Your task to perform on an android device: Go to Maps Image 0: 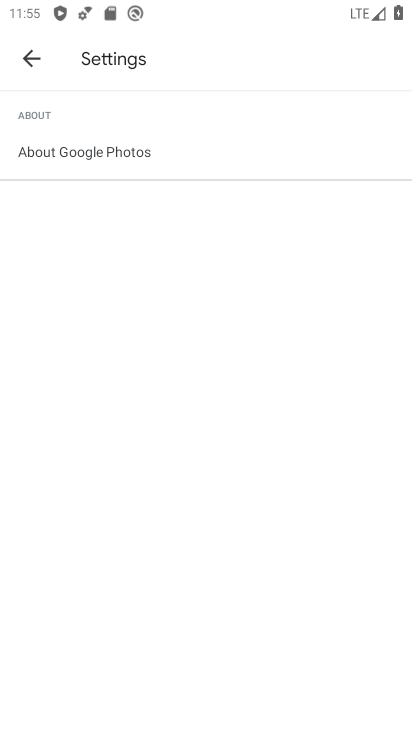
Step 0: press home button
Your task to perform on an android device: Go to Maps Image 1: 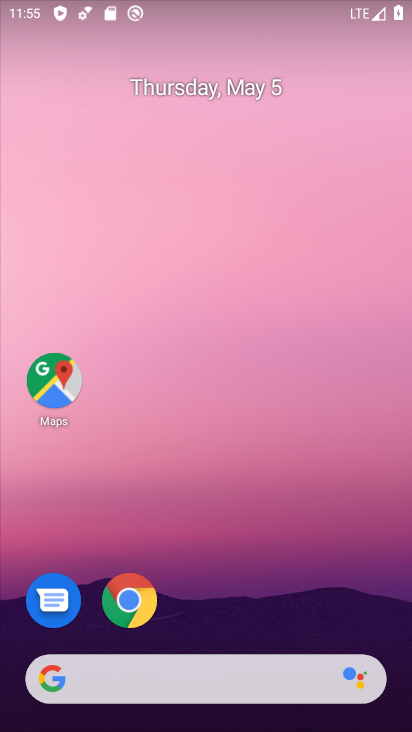
Step 1: drag from (354, 604) to (369, 91)
Your task to perform on an android device: Go to Maps Image 2: 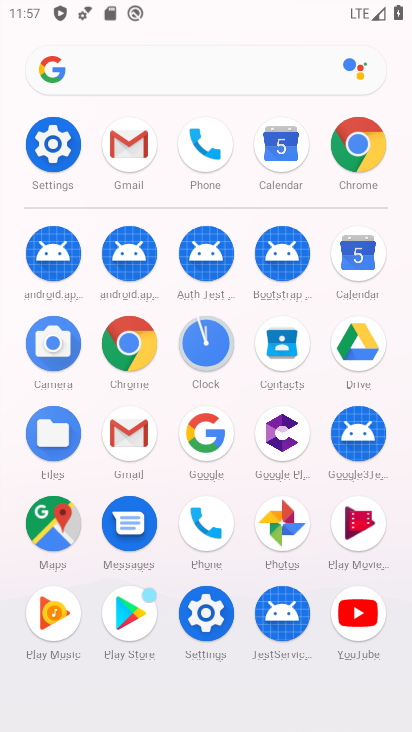
Step 2: click (67, 522)
Your task to perform on an android device: Go to Maps Image 3: 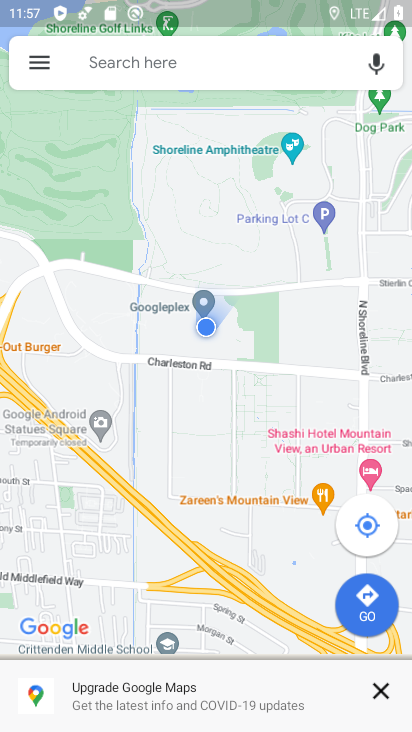
Step 3: task complete